Your task to perform on an android device: Go to Google Image 0: 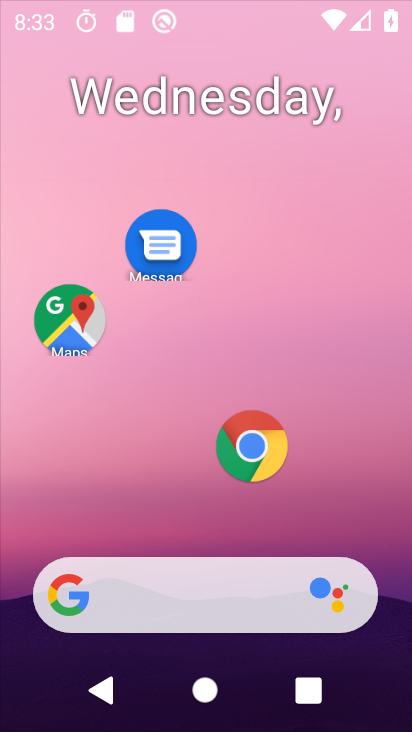
Step 0: click (234, 112)
Your task to perform on an android device: Go to Google Image 1: 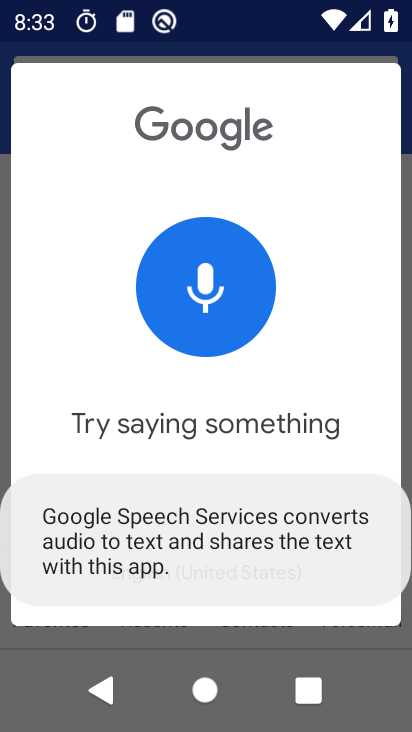
Step 1: press home button
Your task to perform on an android device: Go to Google Image 2: 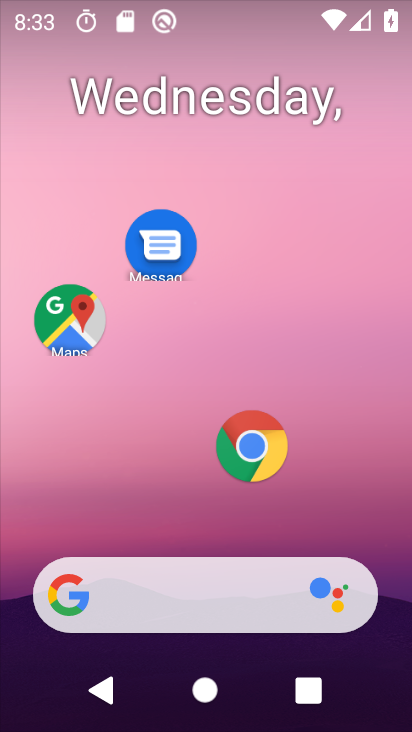
Step 2: drag from (210, 523) to (229, 42)
Your task to perform on an android device: Go to Google Image 3: 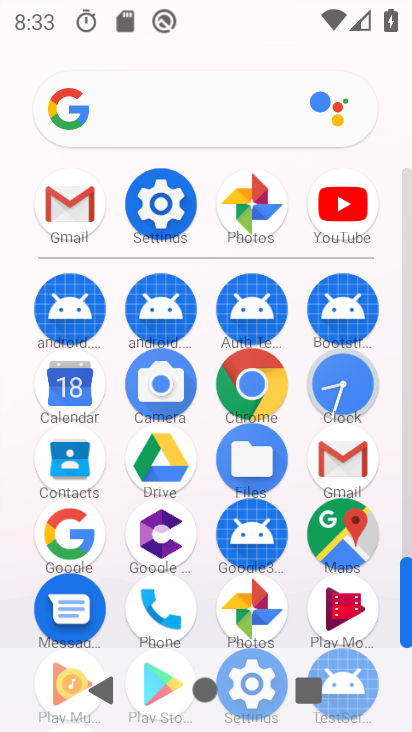
Step 3: click (71, 528)
Your task to perform on an android device: Go to Google Image 4: 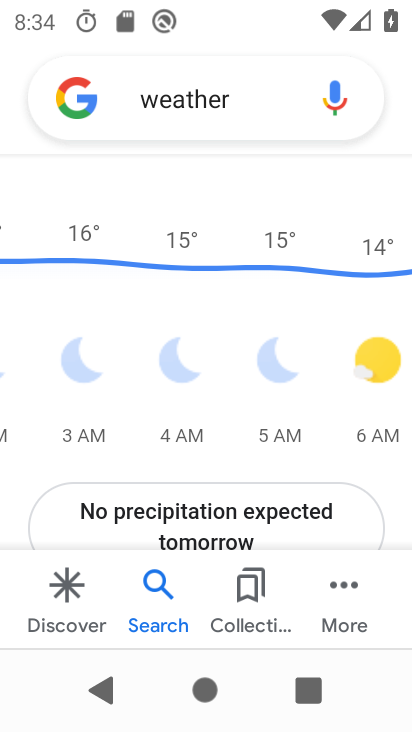
Step 4: task complete